Your task to perform on an android device: View the shopping cart on costco. Add razer huntsman to the cart on costco Image 0: 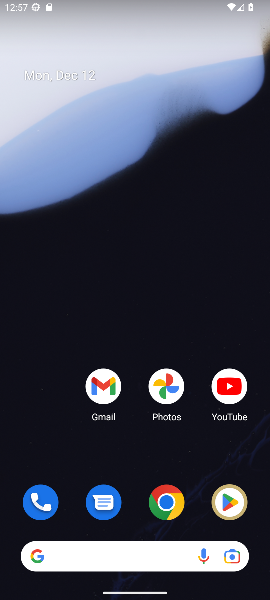
Step 0: click (166, 499)
Your task to perform on an android device: View the shopping cart on costco. Add razer huntsman to the cart on costco Image 1: 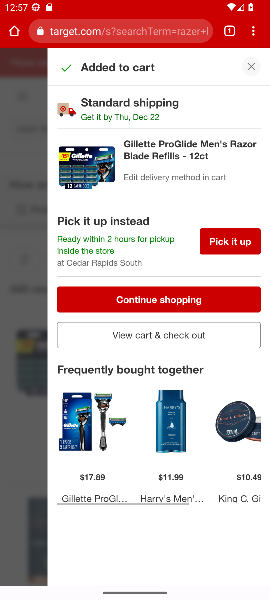
Step 1: click (142, 30)
Your task to perform on an android device: View the shopping cart on costco. Add razer huntsman to the cart on costco Image 2: 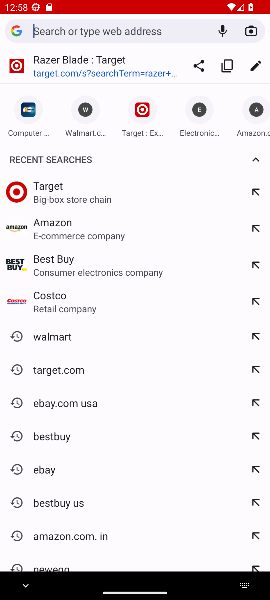
Step 2: click (75, 308)
Your task to perform on an android device: View the shopping cart on costco. Add razer huntsman to the cart on costco Image 3: 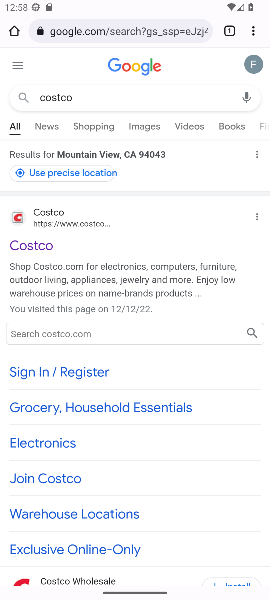
Step 3: click (52, 241)
Your task to perform on an android device: View the shopping cart on costco. Add razer huntsman to the cart on costco Image 4: 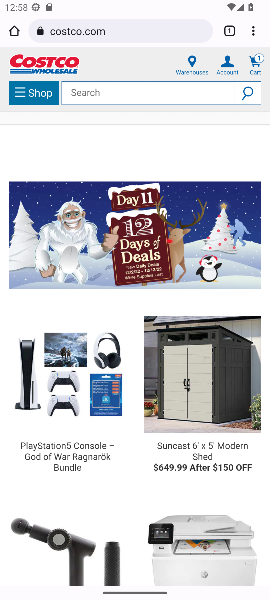
Step 4: click (118, 90)
Your task to perform on an android device: View the shopping cart on costco. Add razer huntsman to the cart on costco Image 5: 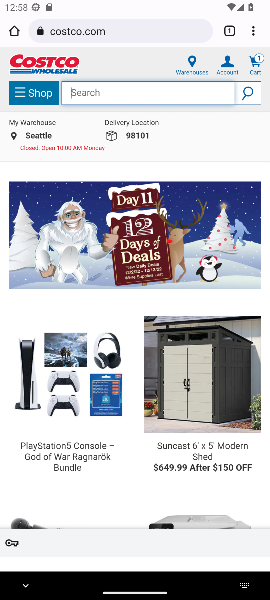
Step 5: type "razer huntsman"
Your task to perform on an android device: View the shopping cart on costco. Add razer huntsman to the cart on costco Image 6: 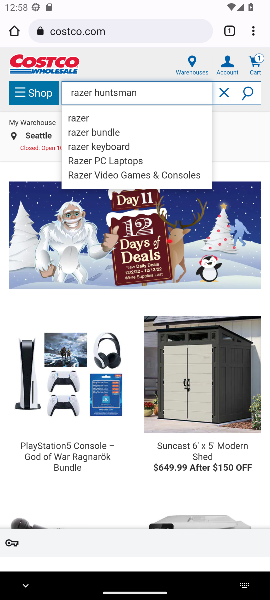
Step 6: click (242, 100)
Your task to perform on an android device: View the shopping cart on costco. Add razer huntsman to the cart on costco Image 7: 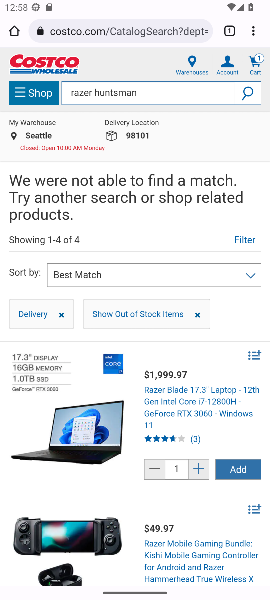
Step 7: click (242, 476)
Your task to perform on an android device: View the shopping cart on costco. Add razer huntsman to the cart on costco Image 8: 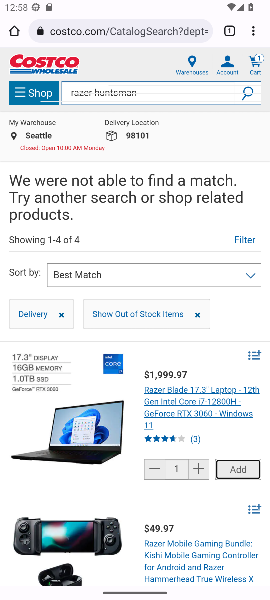
Step 8: task complete